Your task to perform on an android device: Go to Maps Image 0: 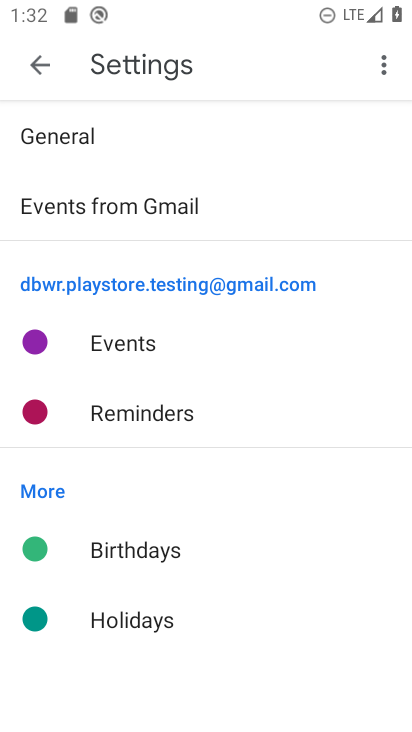
Step 0: press home button
Your task to perform on an android device: Go to Maps Image 1: 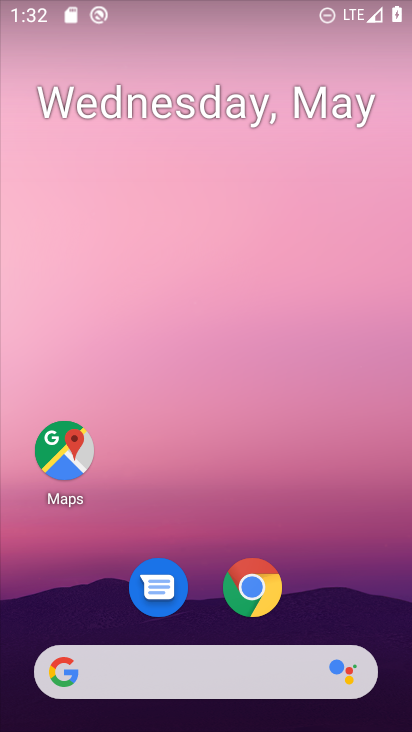
Step 1: click (66, 462)
Your task to perform on an android device: Go to Maps Image 2: 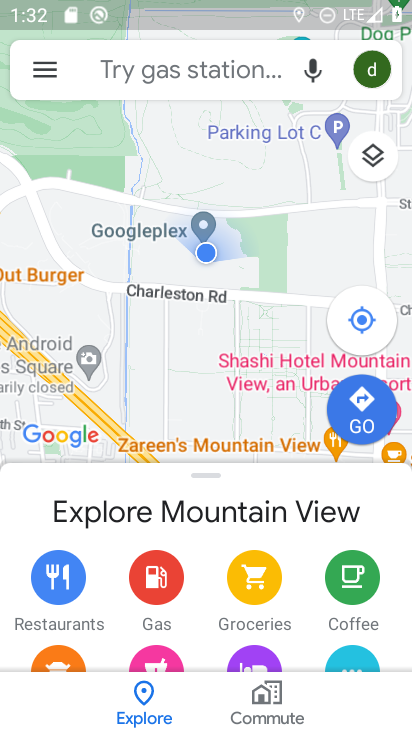
Step 2: task complete